Your task to perform on an android device: move a message to another label in the gmail app Image 0: 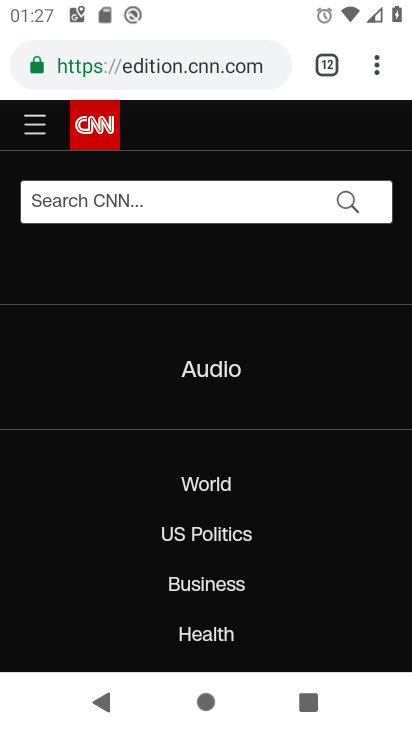
Step 0: press home button
Your task to perform on an android device: move a message to another label in the gmail app Image 1: 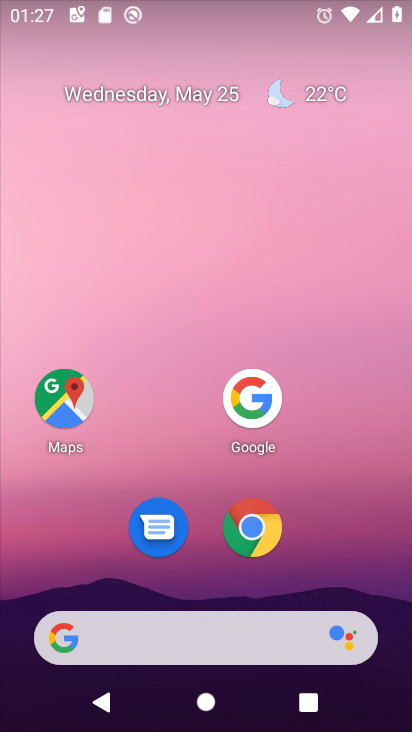
Step 1: drag from (148, 639) to (245, 133)
Your task to perform on an android device: move a message to another label in the gmail app Image 2: 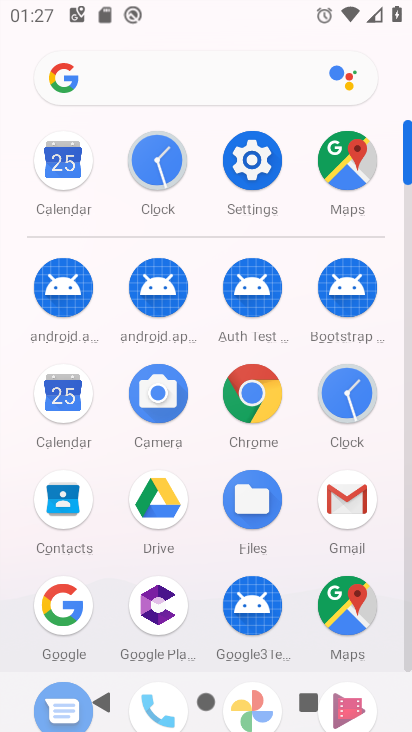
Step 2: click (340, 510)
Your task to perform on an android device: move a message to another label in the gmail app Image 3: 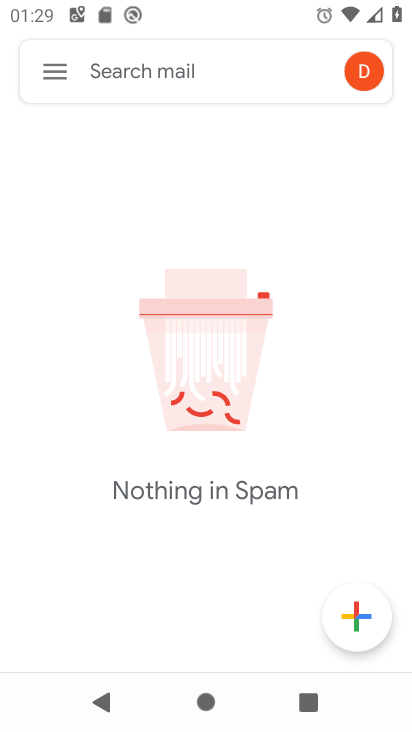
Step 3: task complete